Your task to perform on an android device: delete the emails in spam in the gmail app Image 0: 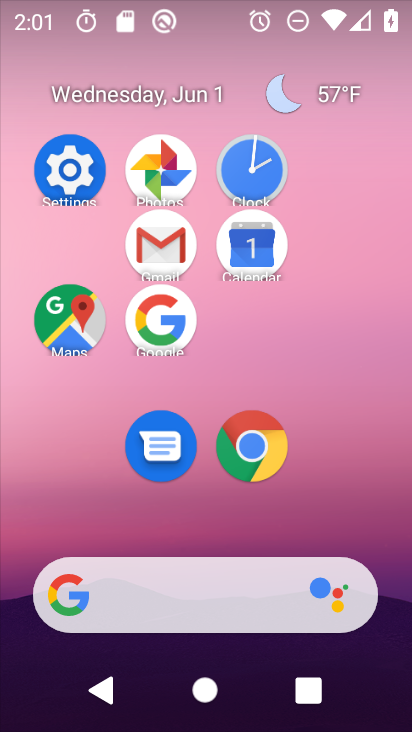
Step 0: click (179, 228)
Your task to perform on an android device: delete the emails in spam in the gmail app Image 1: 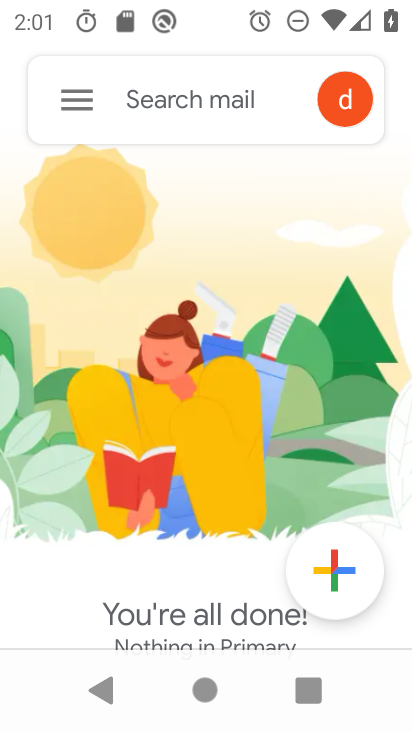
Step 1: click (56, 98)
Your task to perform on an android device: delete the emails in spam in the gmail app Image 2: 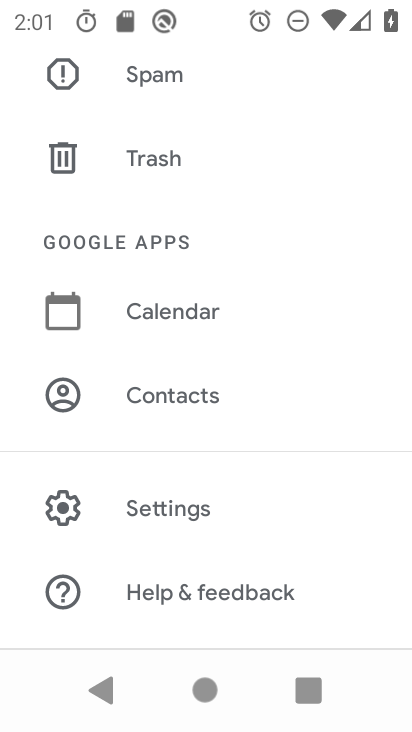
Step 2: drag from (314, 143) to (285, 515)
Your task to perform on an android device: delete the emails in spam in the gmail app Image 3: 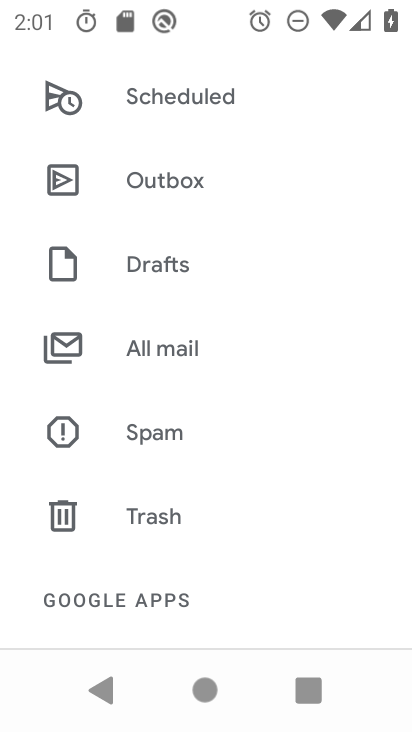
Step 3: click (211, 440)
Your task to perform on an android device: delete the emails in spam in the gmail app Image 4: 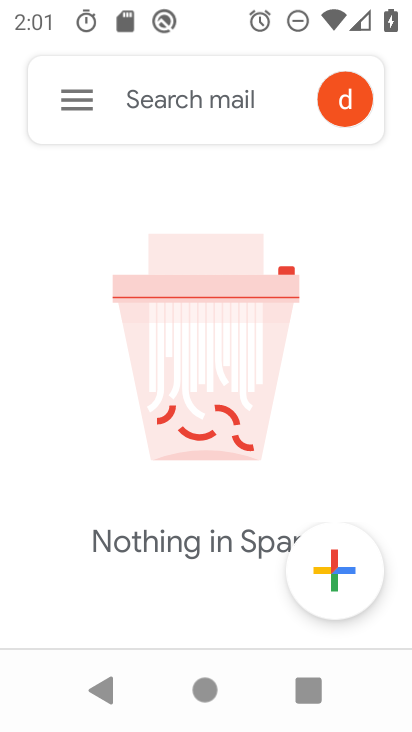
Step 4: task complete